Your task to perform on an android device: Search for seafood restaurants on Google Maps Image 0: 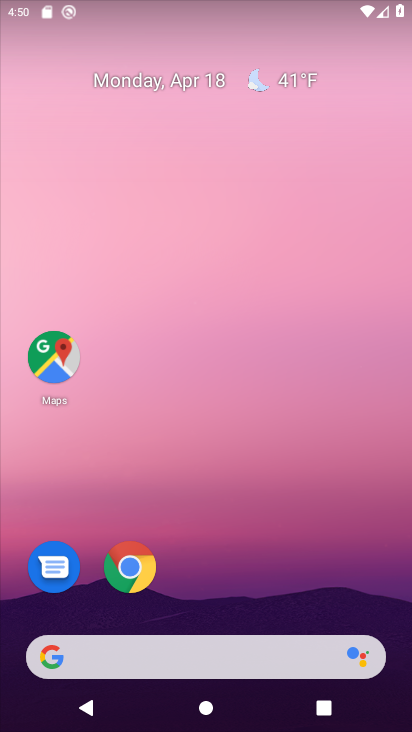
Step 0: click (47, 357)
Your task to perform on an android device: Search for seafood restaurants on Google Maps Image 1: 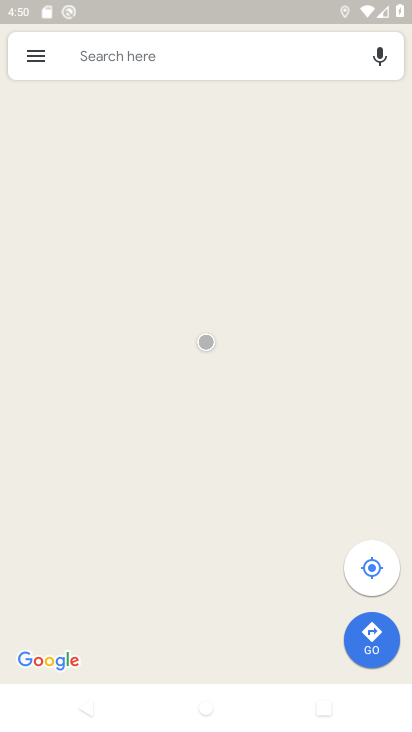
Step 1: click (123, 65)
Your task to perform on an android device: Search for seafood restaurants on Google Maps Image 2: 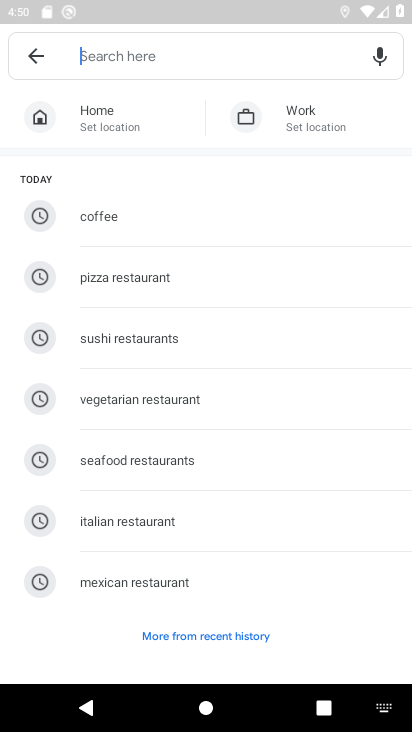
Step 2: click (113, 65)
Your task to perform on an android device: Search for seafood restaurants on Google Maps Image 3: 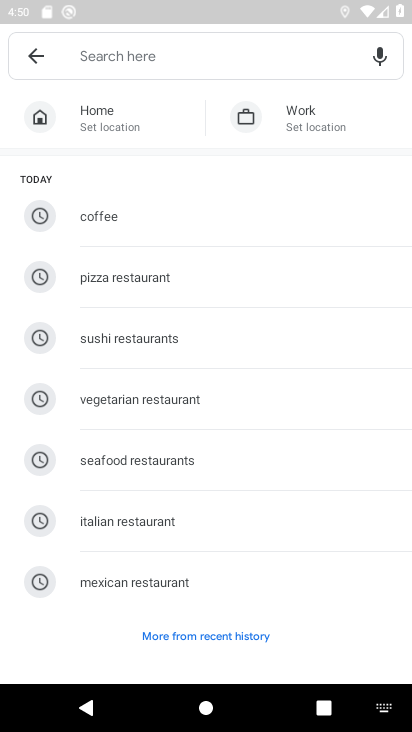
Step 3: click (140, 462)
Your task to perform on an android device: Search for seafood restaurants on Google Maps Image 4: 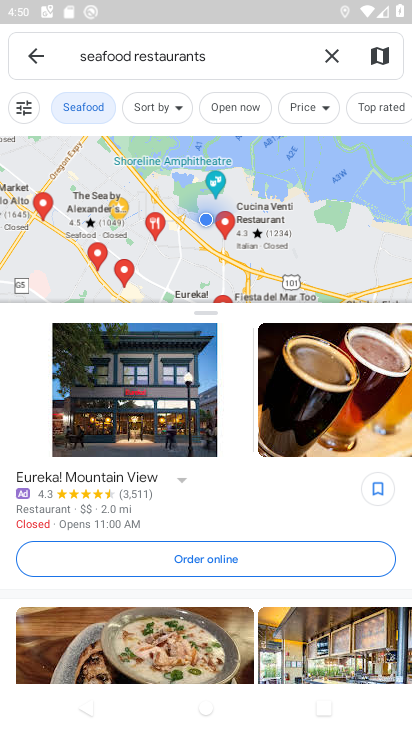
Step 4: task complete